Your task to perform on an android device: find photos in the google photos app Image 0: 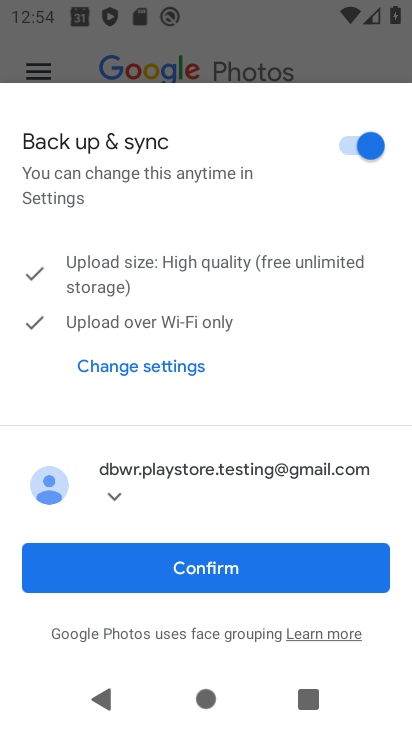
Step 0: press back button
Your task to perform on an android device: find photos in the google photos app Image 1: 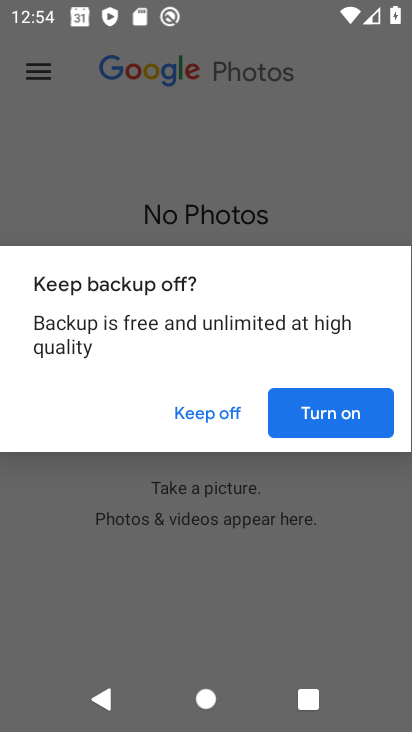
Step 1: press back button
Your task to perform on an android device: find photos in the google photos app Image 2: 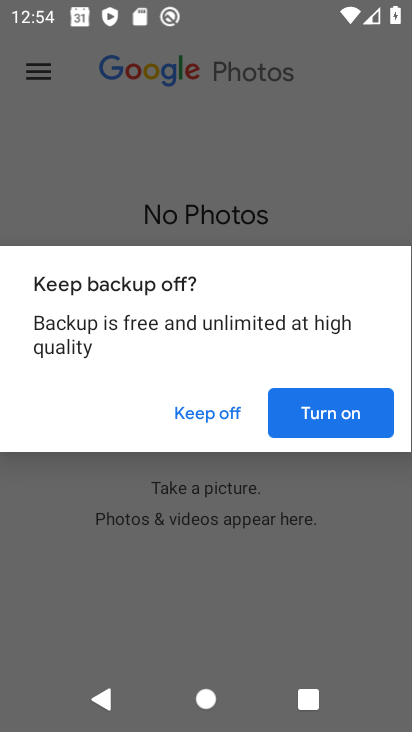
Step 2: press home button
Your task to perform on an android device: find photos in the google photos app Image 3: 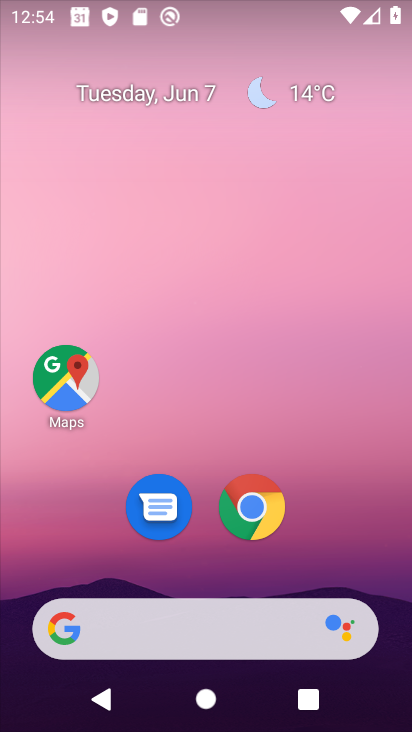
Step 3: drag from (159, 567) to (242, 50)
Your task to perform on an android device: find photos in the google photos app Image 4: 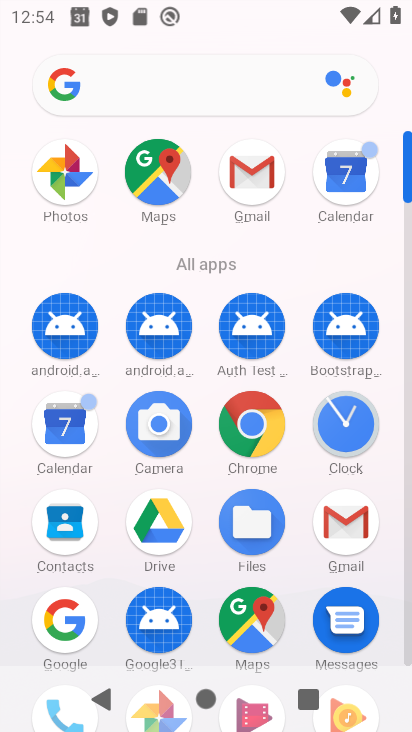
Step 4: drag from (215, 587) to (240, 172)
Your task to perform on an android device: find photos in the google photos app Image 5: 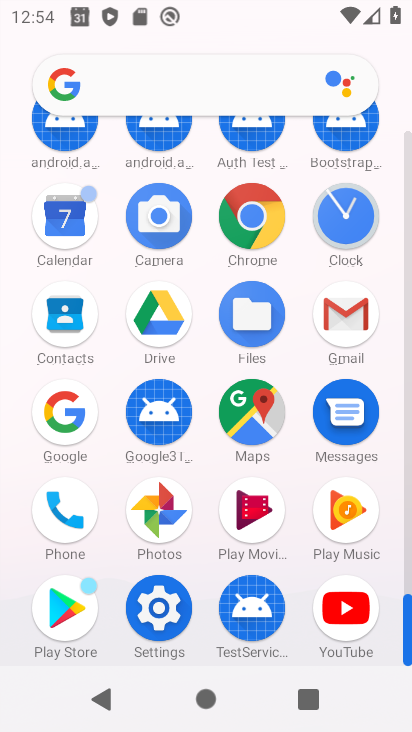
Step 5: click (154, 511)
Your task to perform on an android device: find photos in the google photos app Image 6: 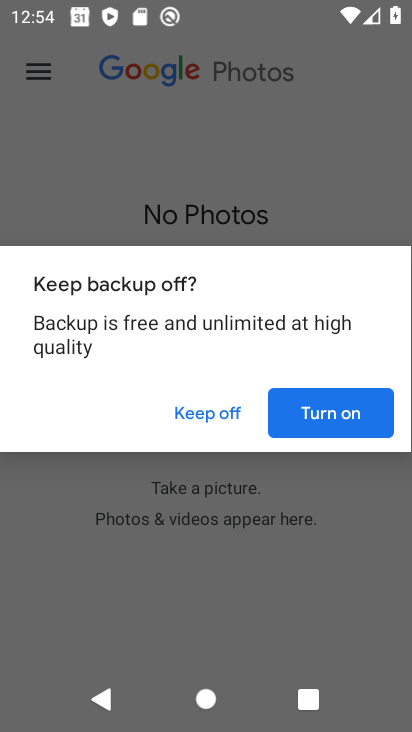
Step 6: click (198, 410)
Your task to perform on an android device: find photos in the google photos app Image 7: 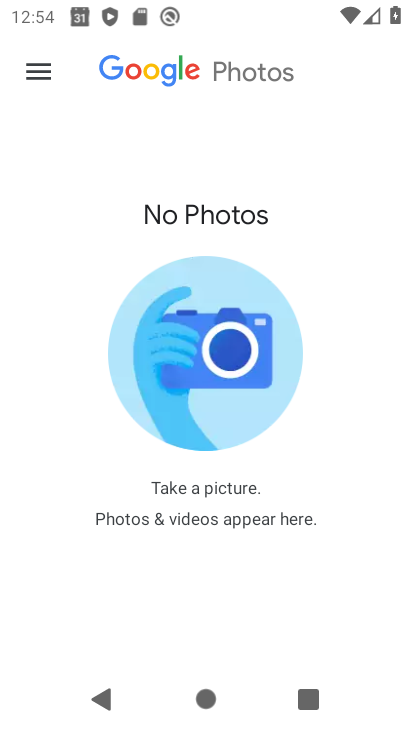
Step 7: task complete